Your task to perform on an android device: turn on location history Image 0: 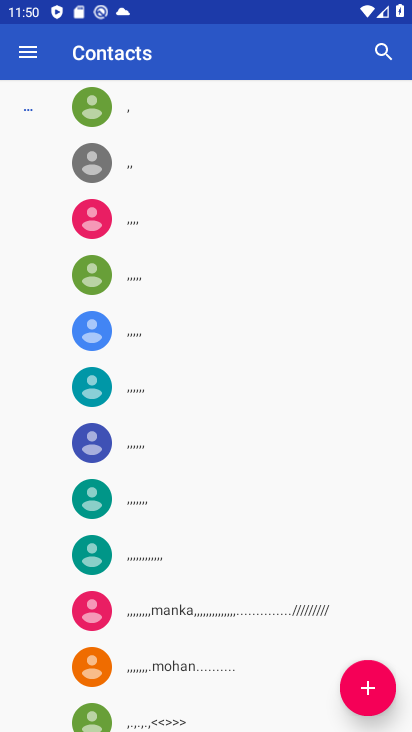
Step 0: press home button
Your task to perform on an android device: turn on location history Image 1: 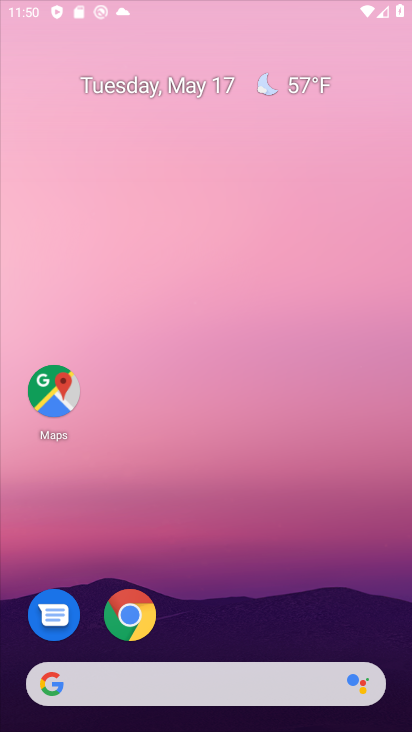
Step 1: drag from (377, 635) to (303, 17)
Your task to perform on an android device: turn on location history Image 2: 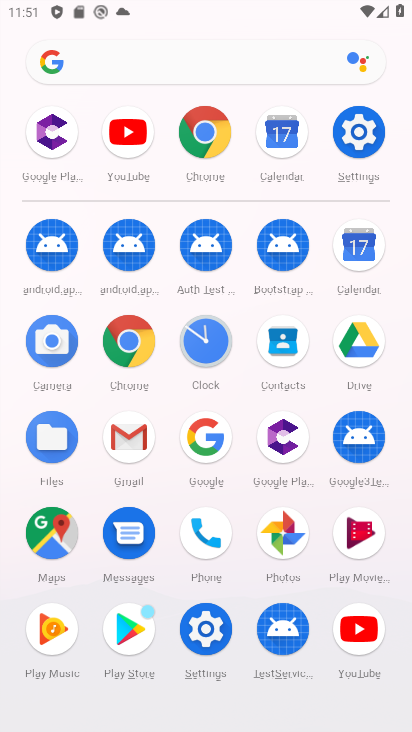
Step 2: click (210, 642)
Your task to perform on an android device: turn on location history Image 3: 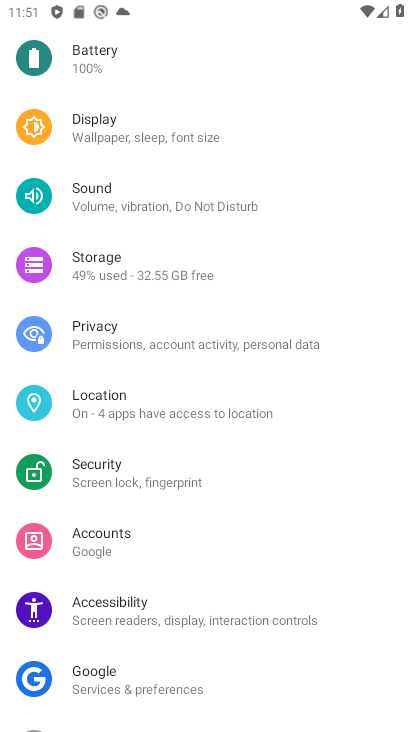
Step 3: click (118, 425)
Your task to perform on an android device: turn on location history Image 4: 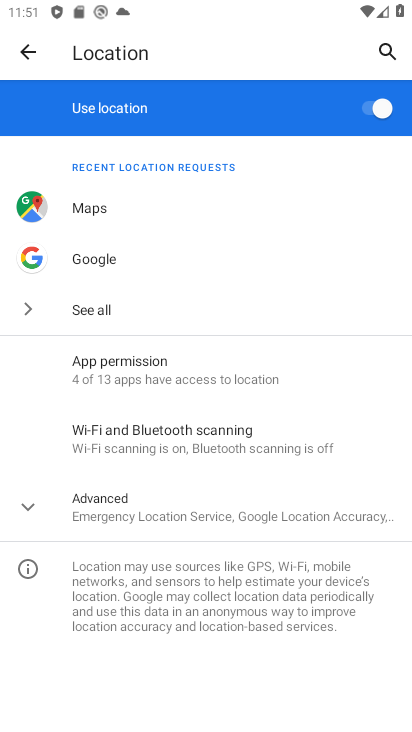
Step 4: click (181, 507)
Your task to perform on an android device: turn on location history Image 5: 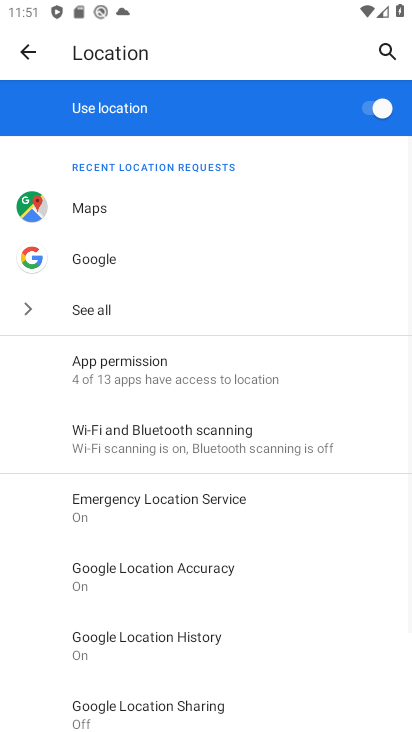
Step 5: click (187, 646)
Your task to perform on an android device: turn on location history Image 6: 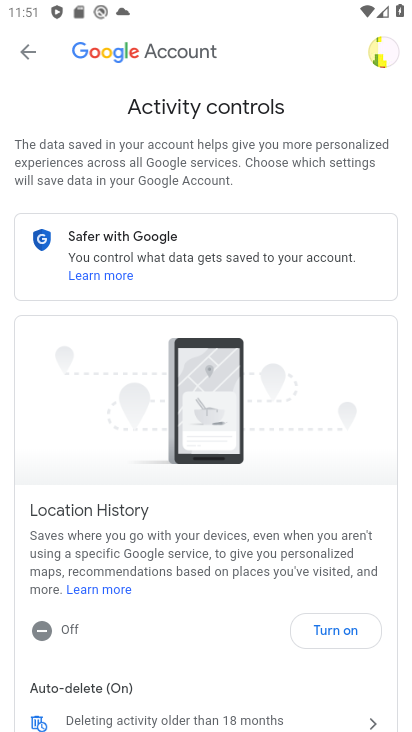
Step 6: task complete